Your task to perform on an android device: turn on improve location accuracy Image 0: 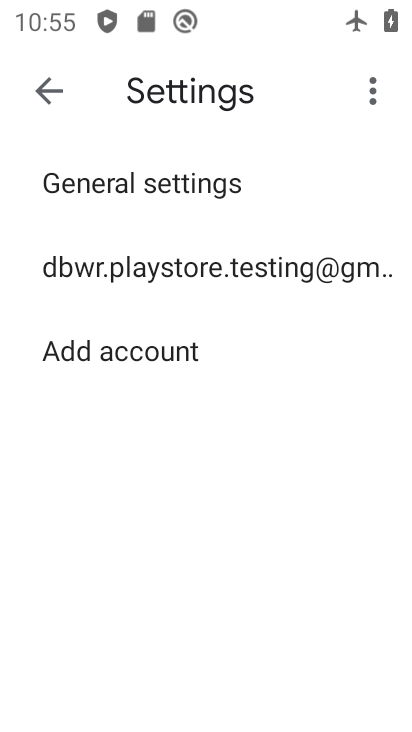
Step 0: press home button
Your task to perform on an android device: turn on improve location accuracy Image 1: 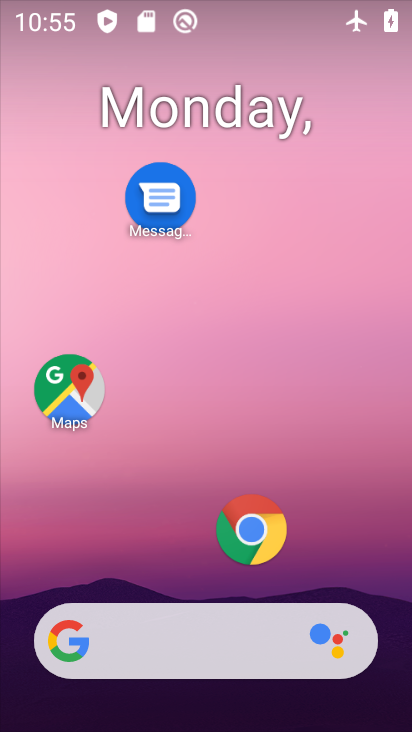
Step 1: drag from (191, 576) to (244, 196)
Your task to perform on an android device: turn on improve location accuracy Image 2: 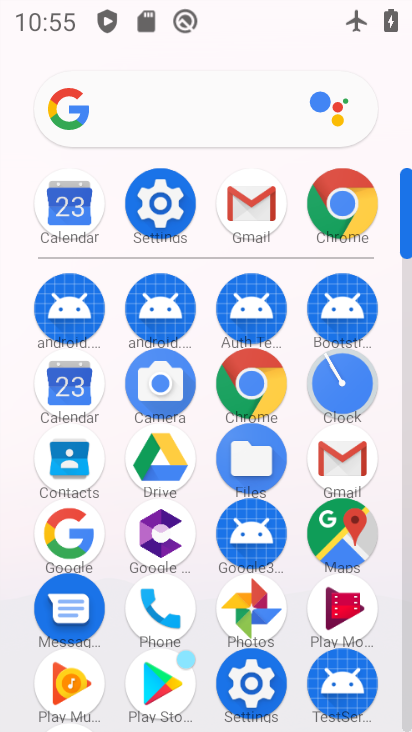
Step 2: click (246, 671)
Your task to perform on an android device: turn on improve location accuracy Image 3: 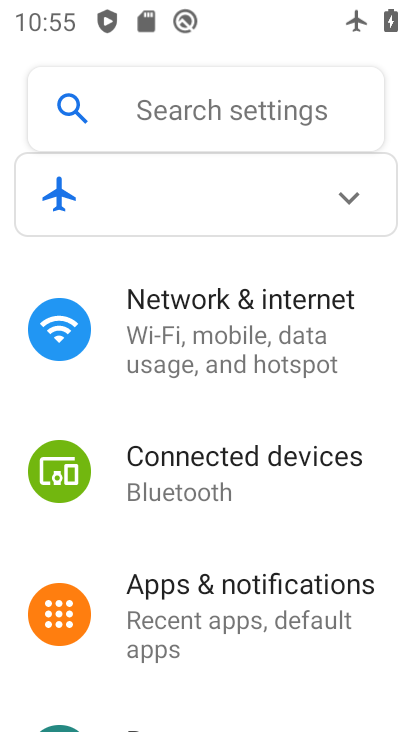
Step 3: drag from (258, 629) to (227, 213)
Your task to perform on an android device: turn on improve location accuracy Image 4: 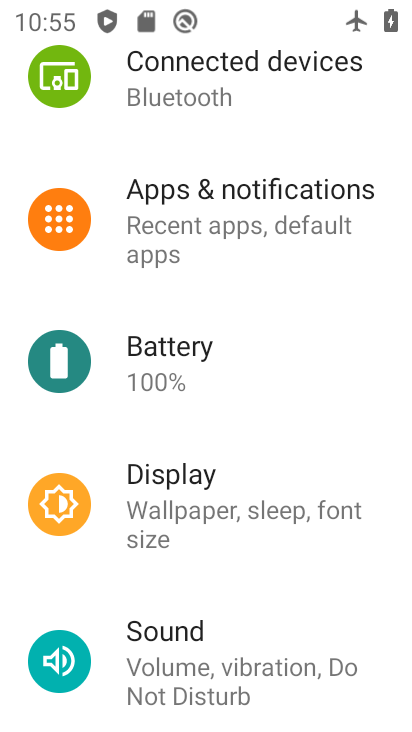
Step 4: drag from (161, 665) to (180, 104)
Your task to perform on an android device: turn on improve location accuracy Image 5: 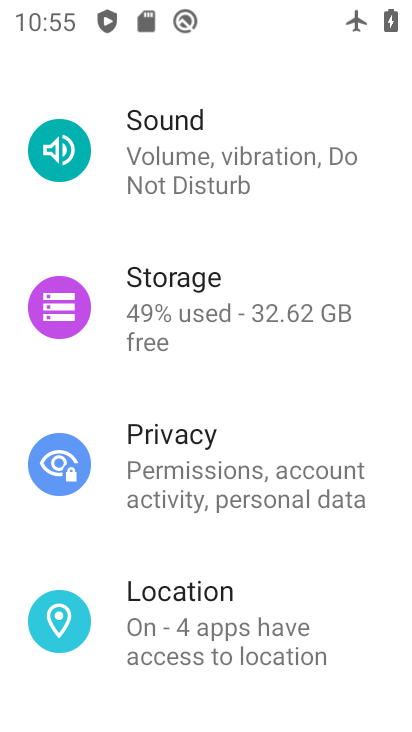
Step 5: click (226, 641)
Your task to perform on an android device: turn on improve location accuracy Image 6: 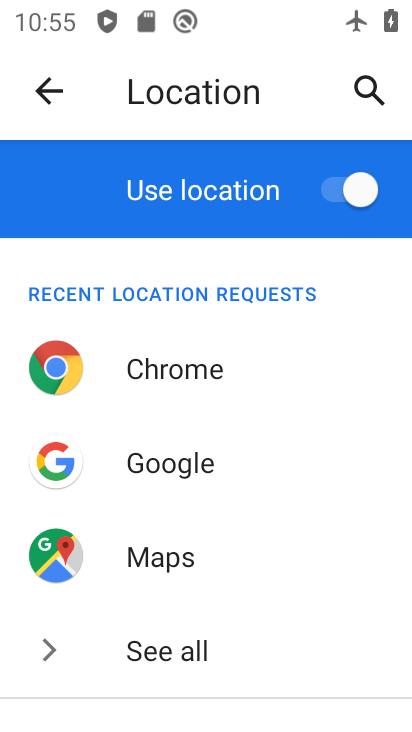
Step 6: drag from (230, 577) to (241, 101)
Your task to perform on an android device: turn on improve location accuracy Image 7: 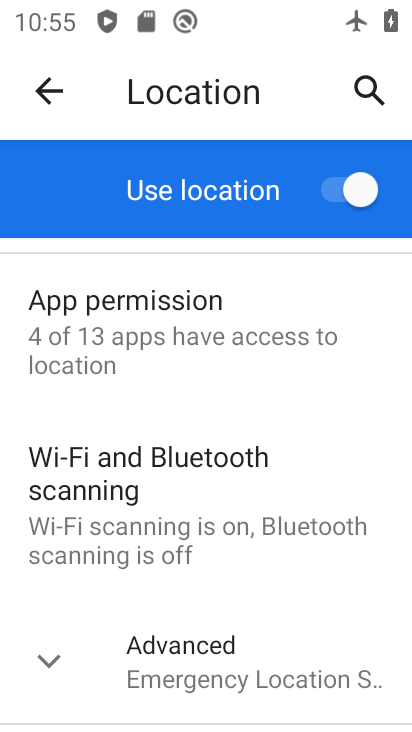
Step 7: click (176, 640)
Your task to perform on an android device: turn on improve location accuracy Image 8: 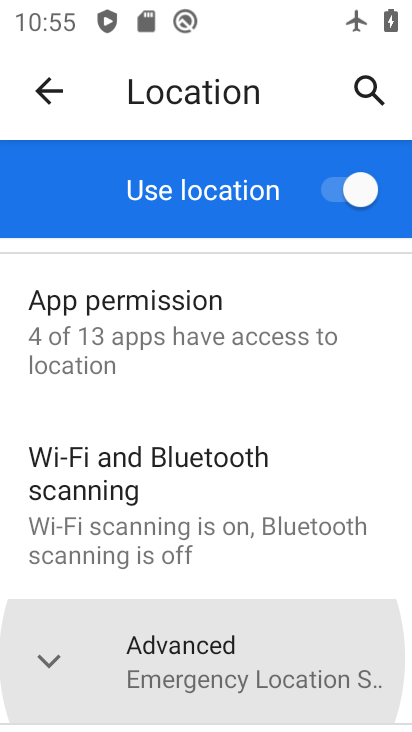
Step 8: drag from (168, 621) to (179, 190)
Your task to perform on an android device: turn on improve location accuracy Image 9: 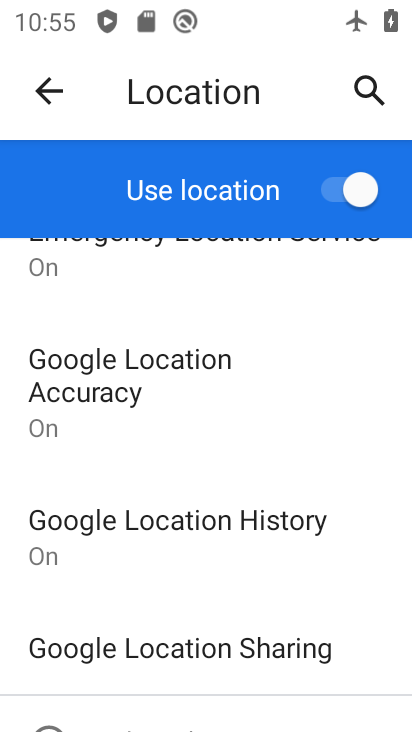
Step 9: click (227, 399)
Your task to perform on an android device: turn on improve location accuracy Image 10: 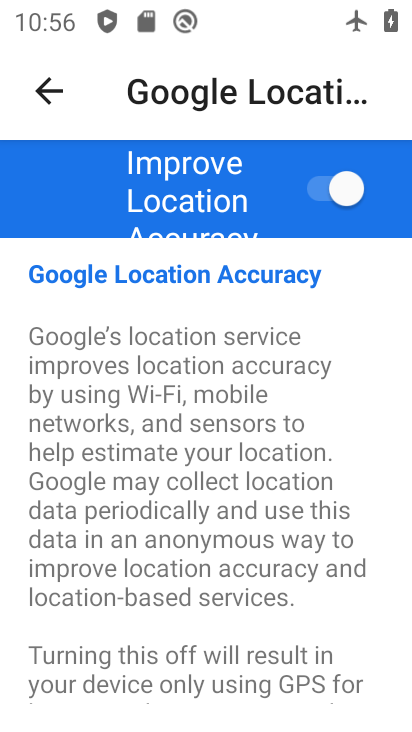
Step 10: task complete